Your task to perform on an android device: Go to ESPN.com Image 0: 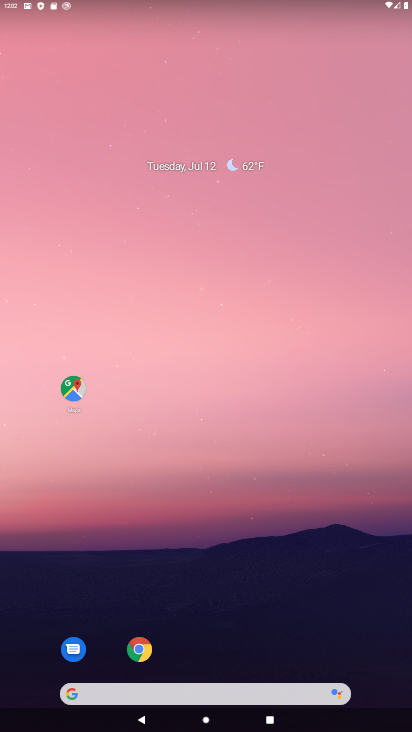
Step 0: drag from (212, 624) to (340, 147)
Your task to perform on an android device: Go to ESPN.com Image 1: 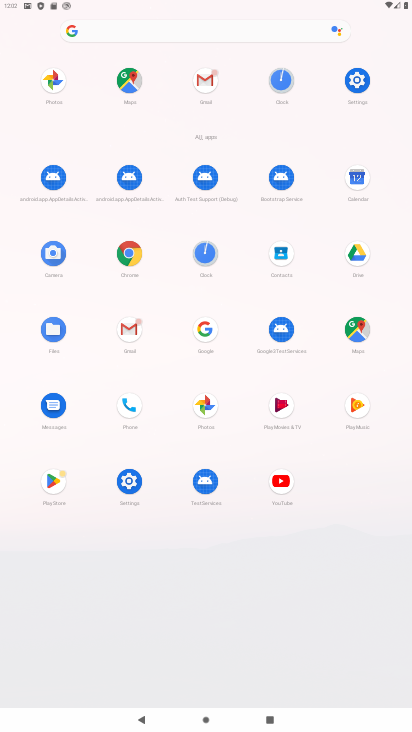
Step 1: click (138, 270)
Your task to perform on an android device: Go to ESPN.com Image 2: 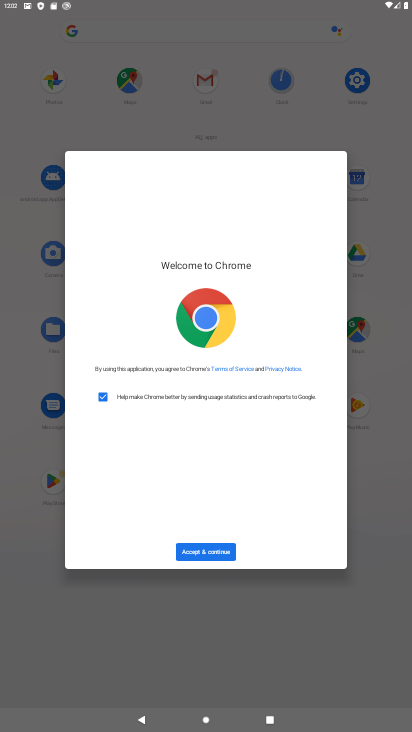
Step 2: click (204, 550)
Your task to perform on an android device: Go to ESPN.com Image 3: 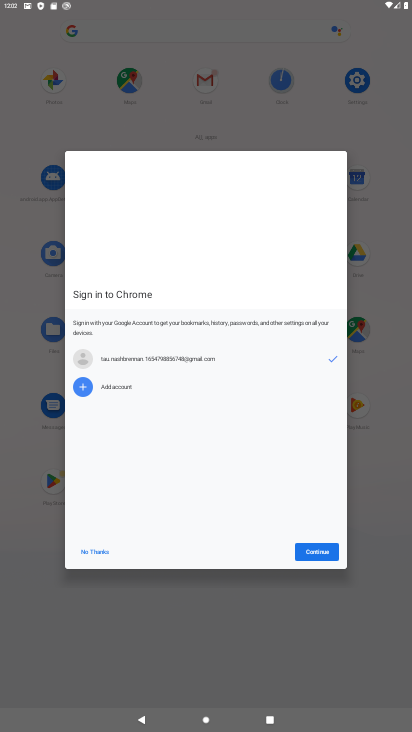
Step 3: click (299, 550)
Your task to perform on an android device: Go to ESPN.com Image 4: 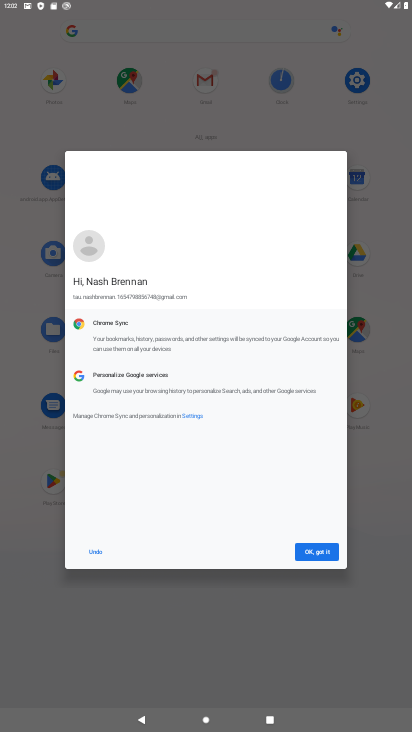
Step 4: click (309, 548)
Your task to perform on an android device: Go to ESPN.com Image 5: 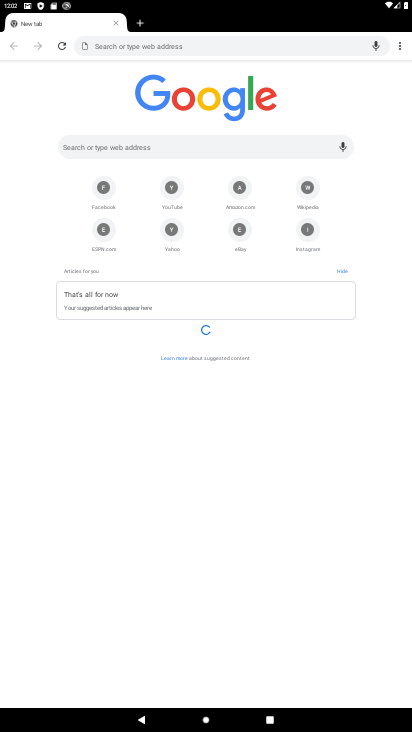
Step 5: click (110, 239)
Your task to perform on an android device: Go to ESPN.com Image 6: 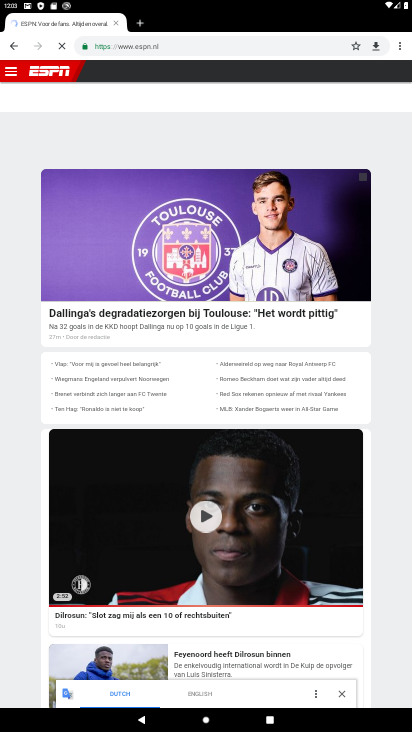
Step 6: task complete